Your task to perform on an android device: Search for vegetarian restaurants on Maps Image 0: 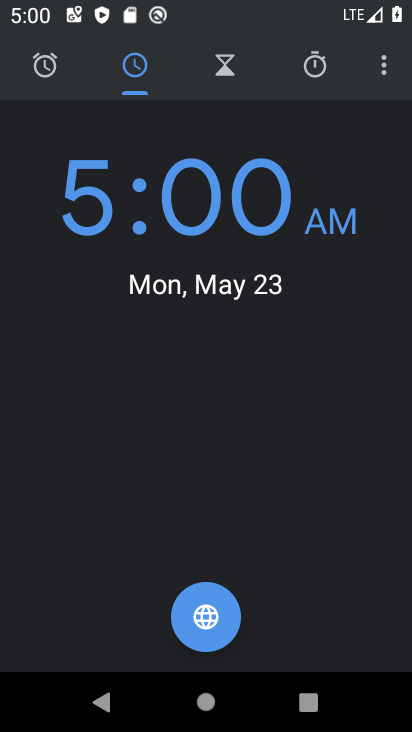
Step 0: click (386, 65)
Your task to perform on an android device: Search for vegetarian restaurants on Maps Image 1: 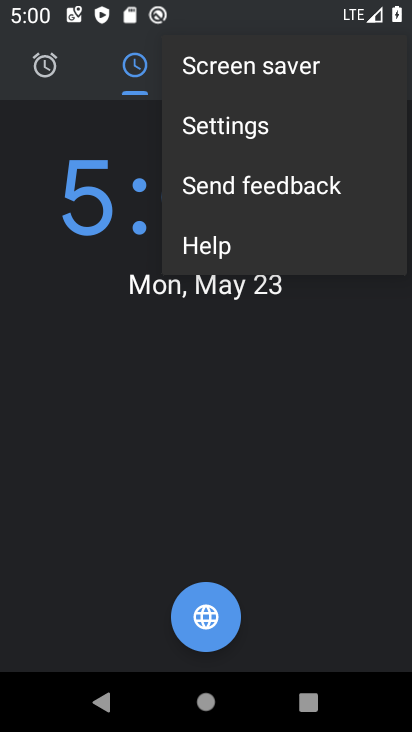
Step 1: press home button
Your task to perform on an android device: Search for vegetarian restaurants on Maps Image 2: 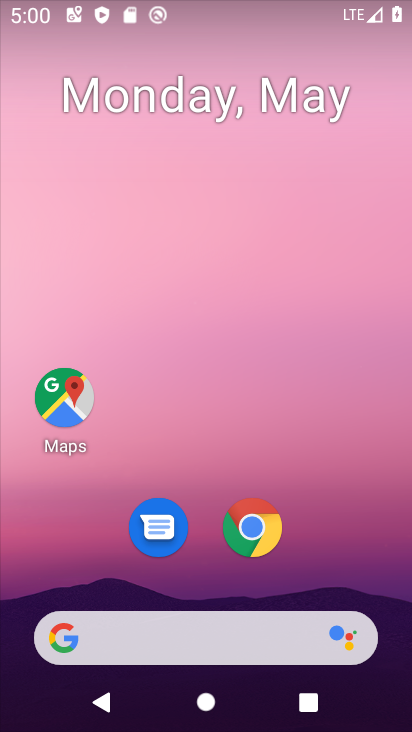
Step 2: click (51, 393)
Your task to perform on an android device: Search for vegetarian restaurants on Maps Image 3: 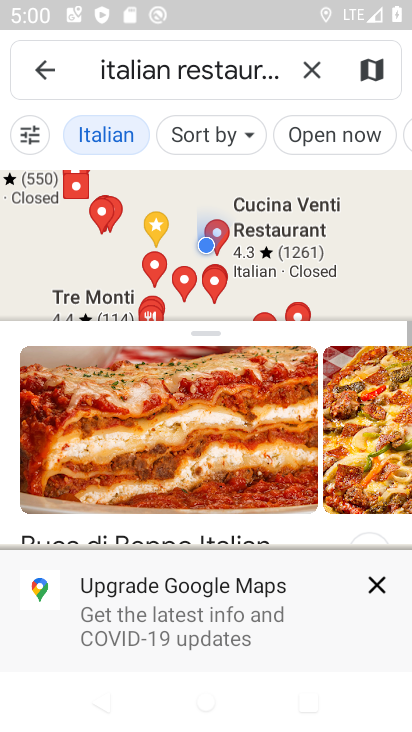
Step 3: click (319, 70)
Your task to perform on an android device: Search for vegetarian restaurants on Maps Image 4: 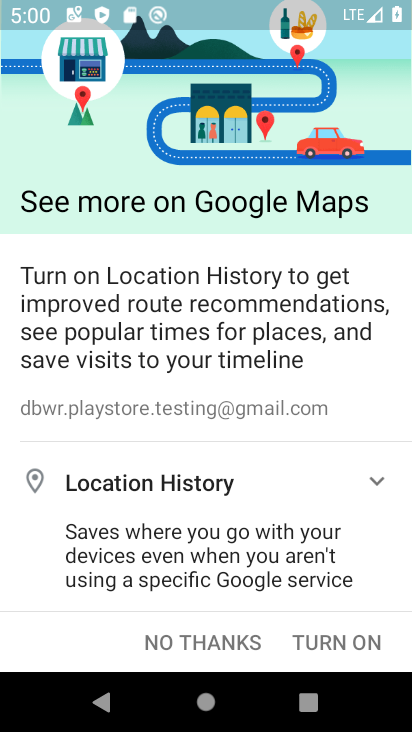
Step 4: click (320, 637)
Your task to perform on an android device: Search for vegetarian restaurants on Maps Image 5: 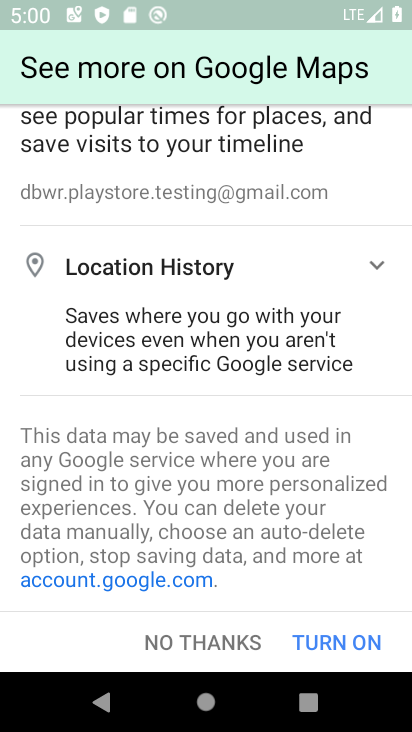
Step 5: click (333, 642)
Your task to perform on an android device: Search for vegetarian restaurants on Maps Image 6: 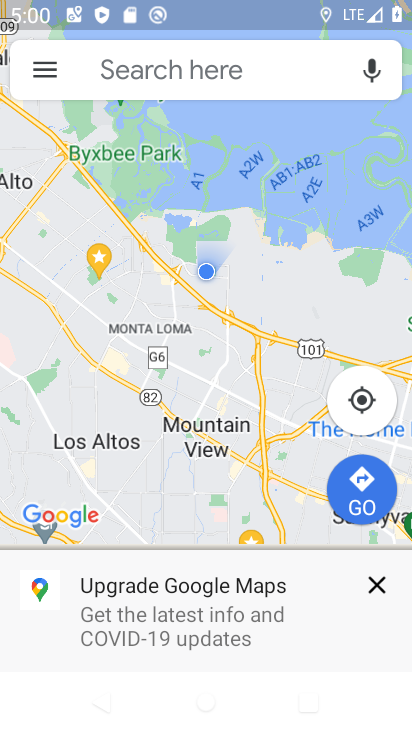
Step 6: click (82, 69)
Your task to perform on an android device: Search for vegetarian restaurants on Maps Image 7: 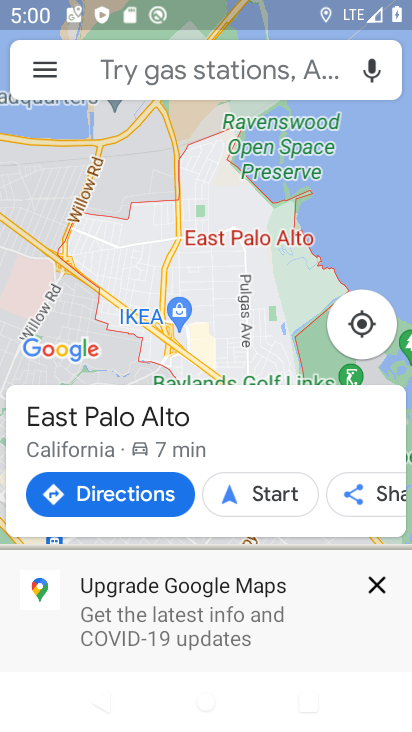
Step 7: click (103, 76)
Your task to perform on an android device: Search for vegetarian restaurants on Maps Image 8: 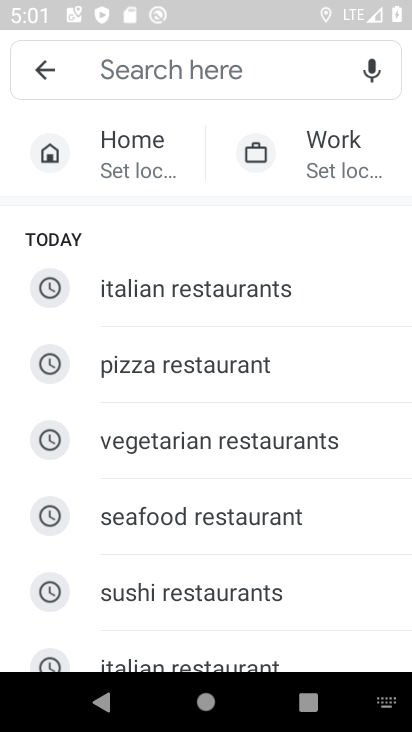
Step 8: type "vegetarian restaurants"
Your task to perform on an android device: Search for vegetarian restaurants on Maps Image 9: 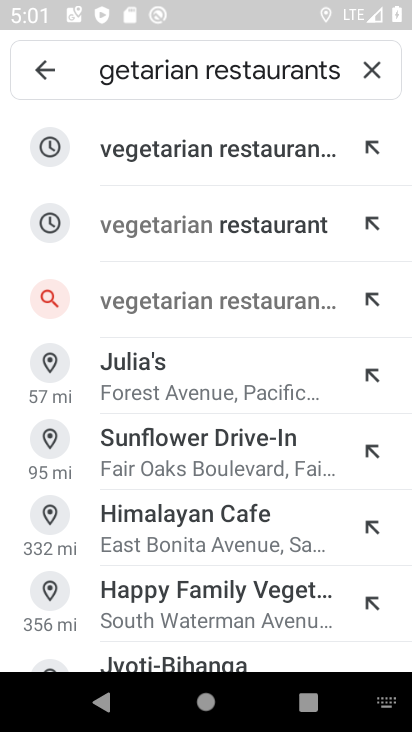
Step 9: click (156, 300)
Your task to perform on an android device: Search for vegetarian restaurants on Maps Image 10: 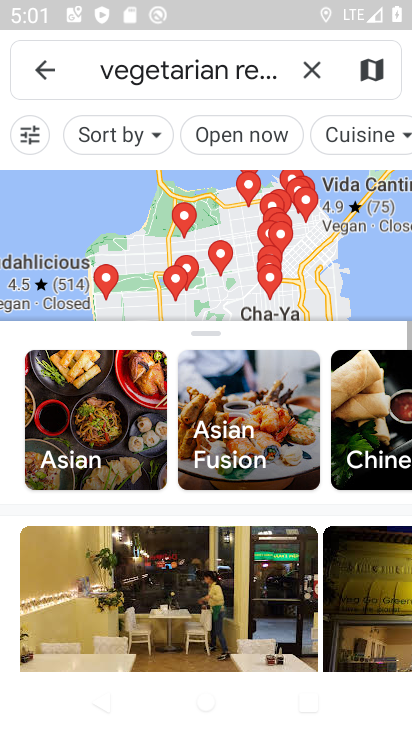
Step 10: task complete